Your task to perform on an android device: add a contact in the contacts app Image 0: 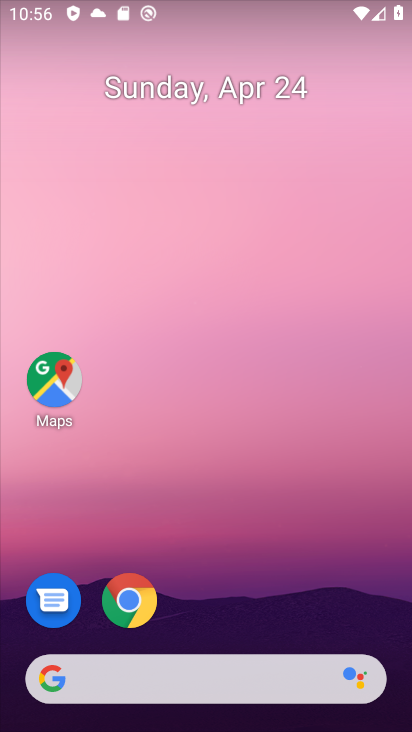
Step 0: drag from (174, 0) to (272, 68)
Your task to perform on an android device: add a contact in the contacts app Image 1: 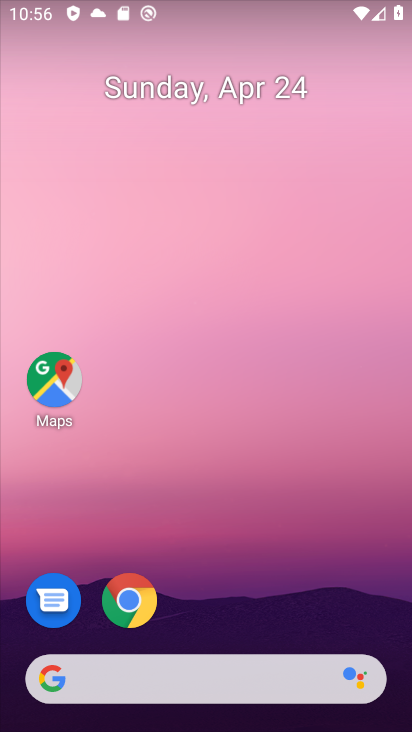
Step 1: drag from (214, 608) to (204, 111)
Your task to perform on an android device: add a contact in the contacts app Image 2: 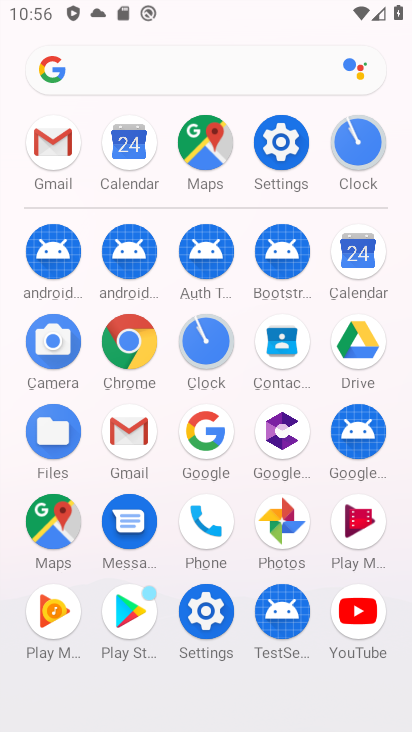
Step 2: click (274, 349)
Your task to perform on an android device: add a contact in the contacts app Image 3: 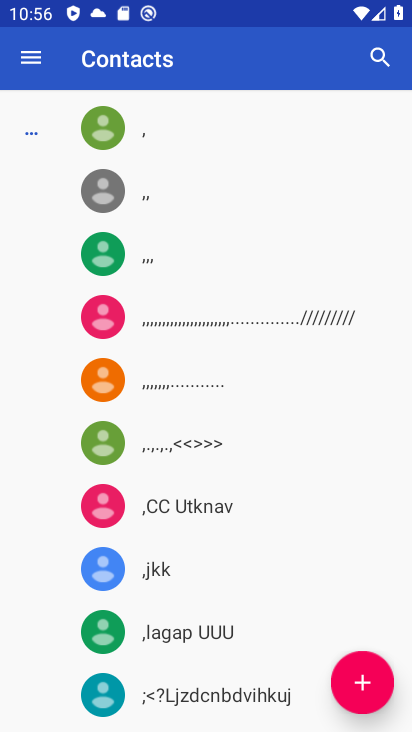
Step 3: click (361, 685)
Your task to perform on an android device: add a contact in the contacts app Image 4: 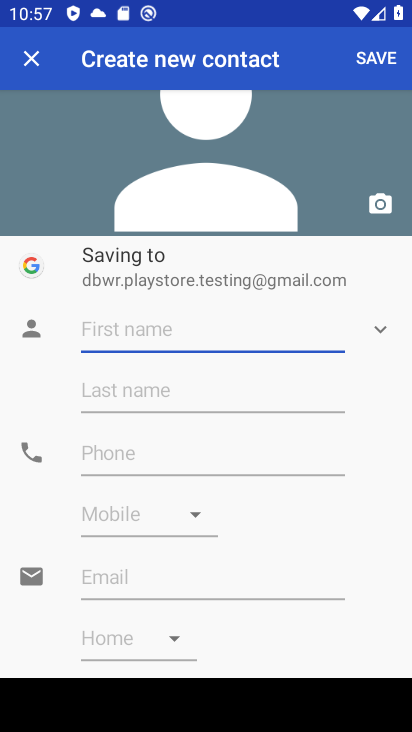
Step 4: type "kakaka"
Your task to perform on an android device: add a contact in the contacts app Image 5: 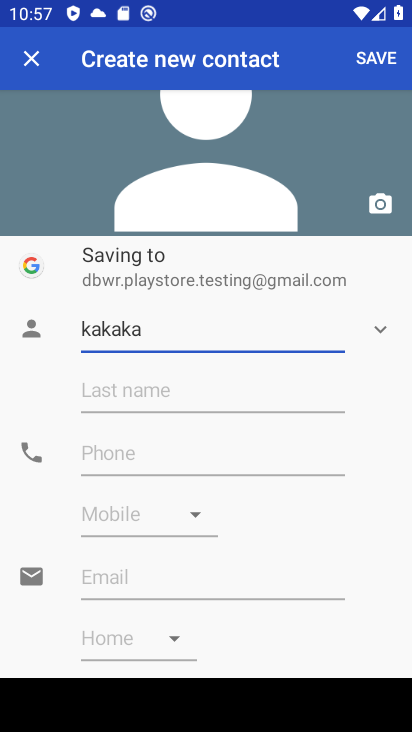
Step 5: click (171, 457)
Your task to perform on an android device: add a contact in the contacts app Image 6: 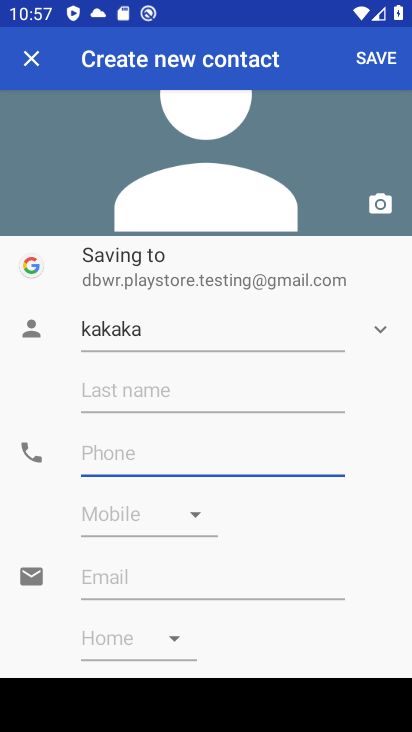
Step 6: click (141, 449)
Your task to perform on an android device: add a contact in the contacts app Image 7: 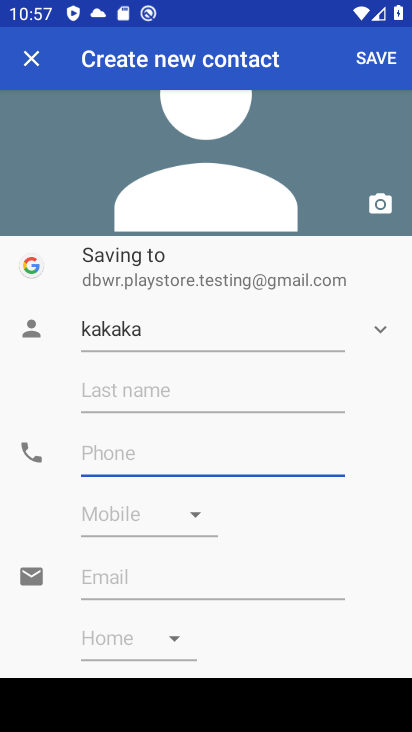
Step 7: type "9856476547"
Your task to perform on an android device: add a contact in the contacts app Image 8: 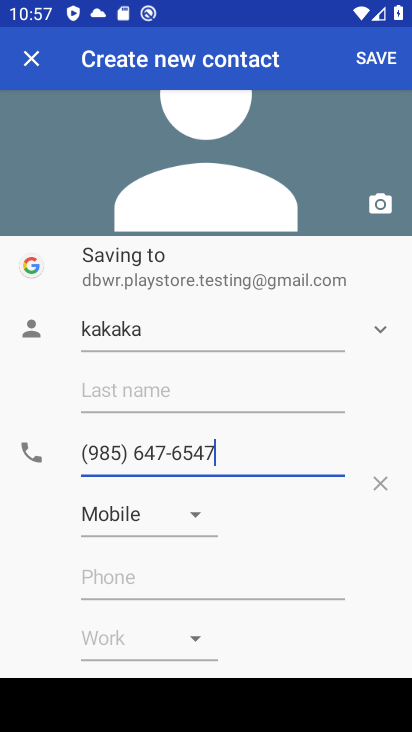
Step 8: click (372, 56)
Your task to perform on an android device: add a contact in the contacts app Image 9: 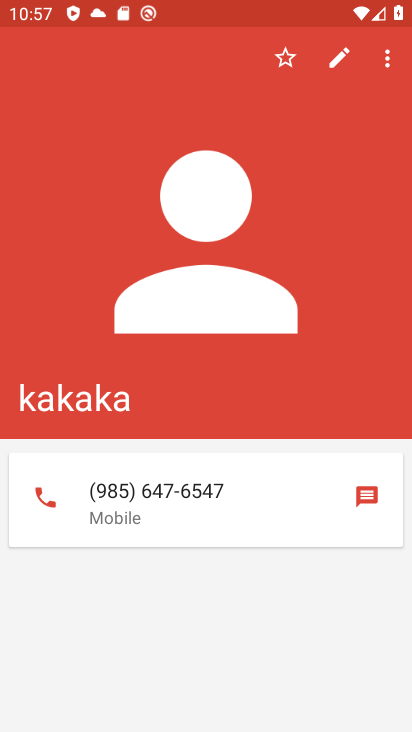
Step 9: task complete